Your task to perform on an android device: toggle notifications settings in the gmail app Image 0: 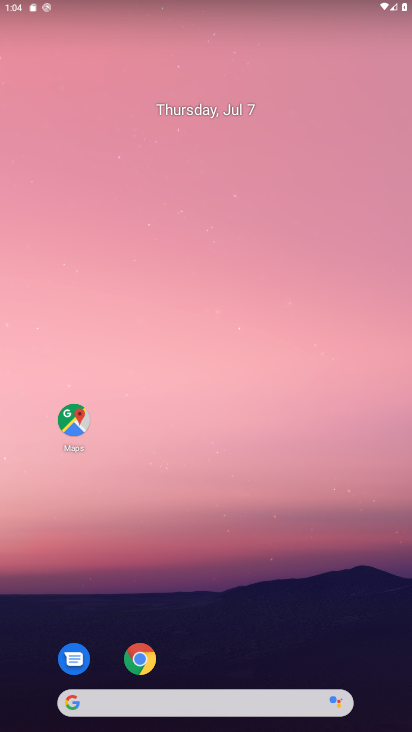
Step 0: drag from (203, 594) to (293, 117)
Your task to perform on an android device: toggle notifications settings in the gmail app Image 1: 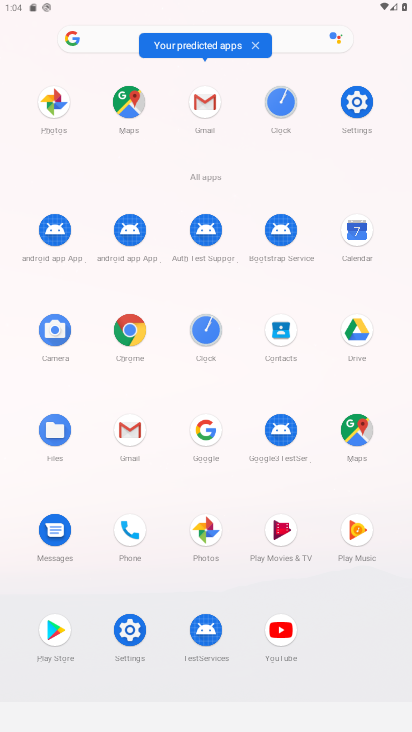
Step 1: click (200, 110)
Your task to perform on an android device: toggle notifications settings in the gmail app Image 2: 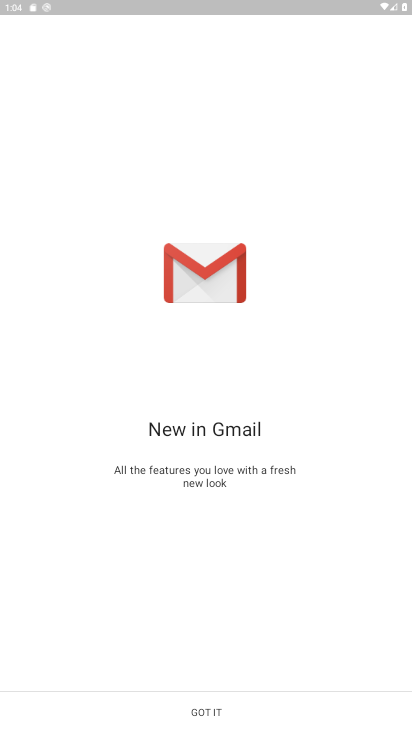
Step 2: click (217, 702)
Your task to perform on an android device: toggle notifications settings in the gmail app Image 3: 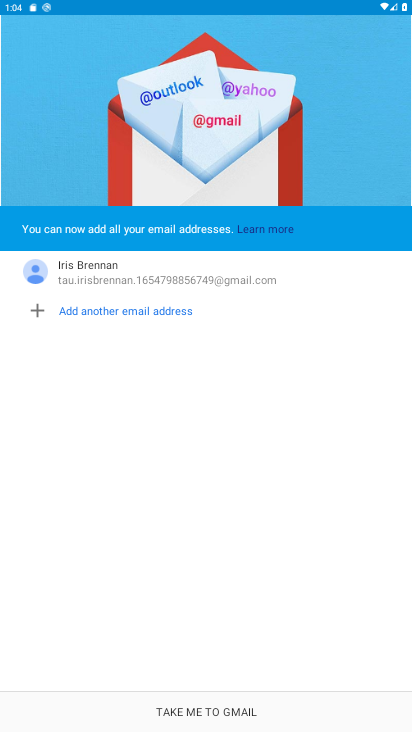
Step 3: click (192, 708)
Your task to perform on an android device: toggle notifications settings in the gmail app Image 4: 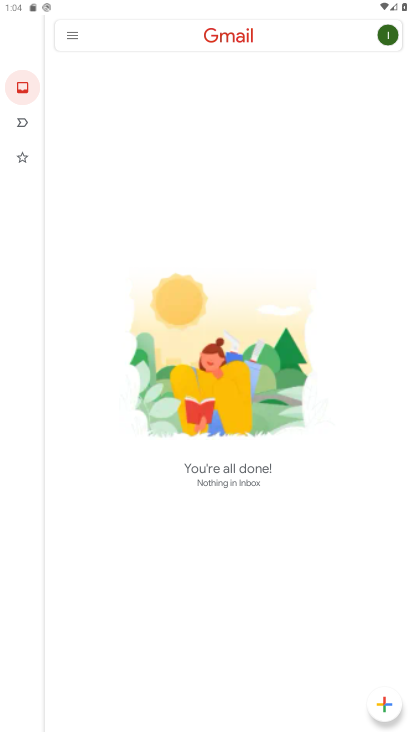
Step 4: click (76, 32)
Your task to perform on an android device: toggle notifications settings in the gmail app Image 5: 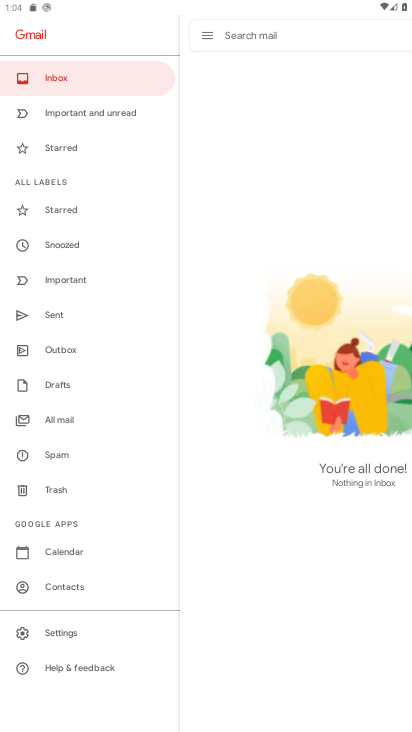
Step 5: click (76, 631)
Your task to perform on an android device: toggle notifications settings in the gmail app Image 6: 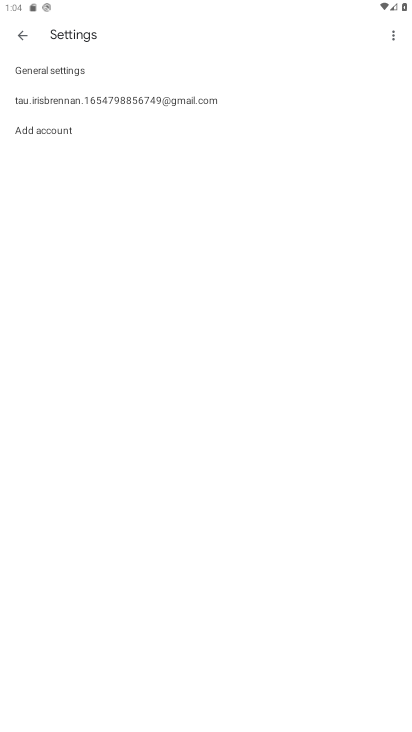
Step 6: drag from (217, 351) to (225, 289)
Your task to perform on an android device: toggle notifications settings in the gmail app Image 7: 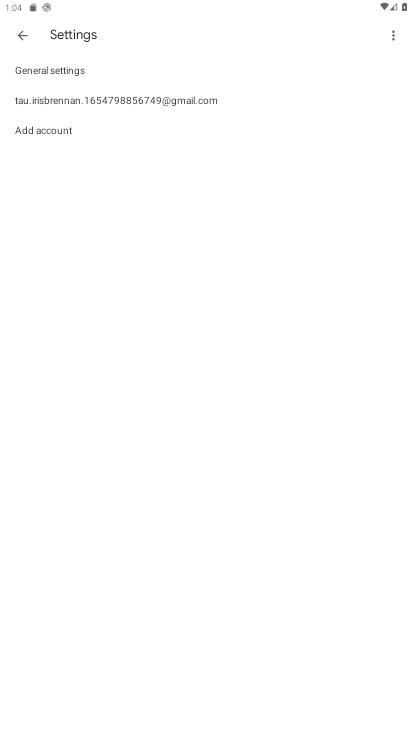
Step 7: click (83, 109)
Your task to perform on an android device: toggle notifications settings in the gmail app Image 8: 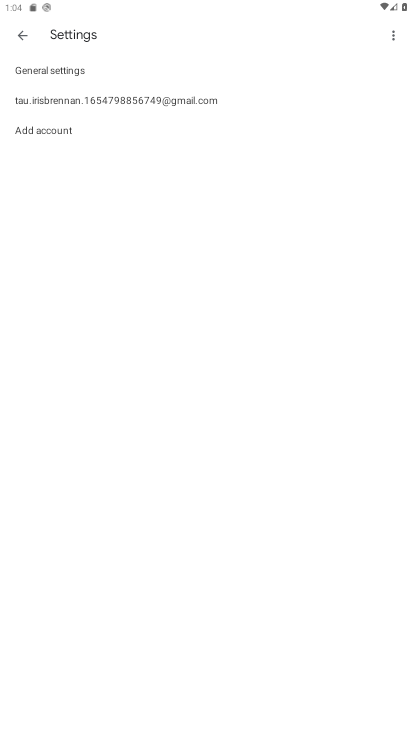
Step 8: click (83, 109)
Your task to perform on an android device: toggle notifications settings in the gmail app Image 9: 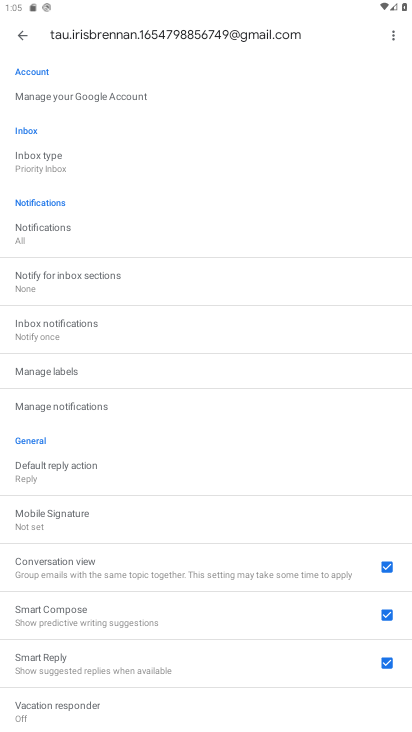
Step 9: click (72, 397)
Your task to perform on an android device: toggle notifications settings in the gmail app Image 10: 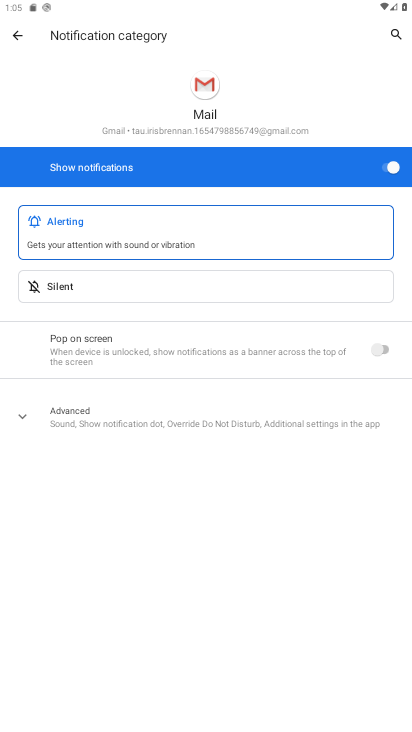
Step 10: click (389, 168)
Your task to perform on an android device: toggle notifications settings in the gmail app Image 11: 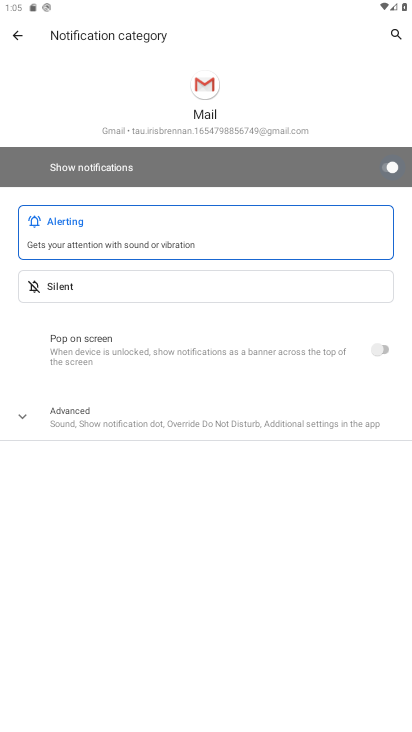
Step 11: task complete